Your task to perform on an android device: What's the weather going to be tomorrow? Image 0: 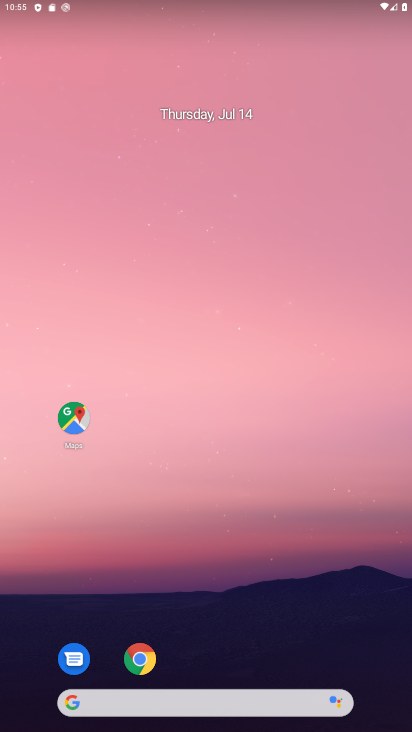
Step 0: click (140, 664)
Your task to perform on an android device: What's the weather going to be tomorrow? Image 1: 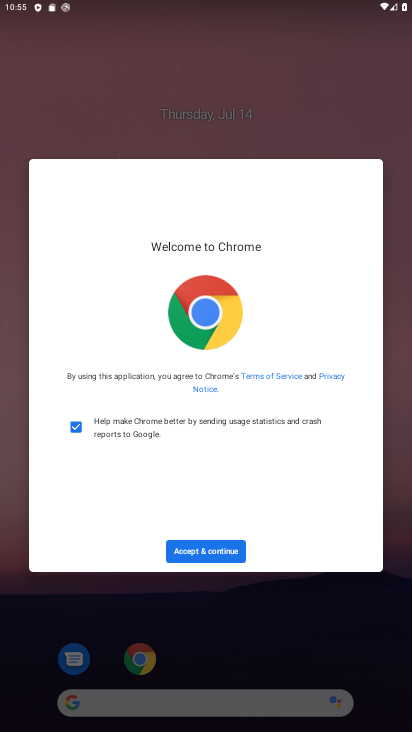
Step 1: click (218, 548)
Your task to perform on an android device: What's the weather going to be tomorrow? Image 2: 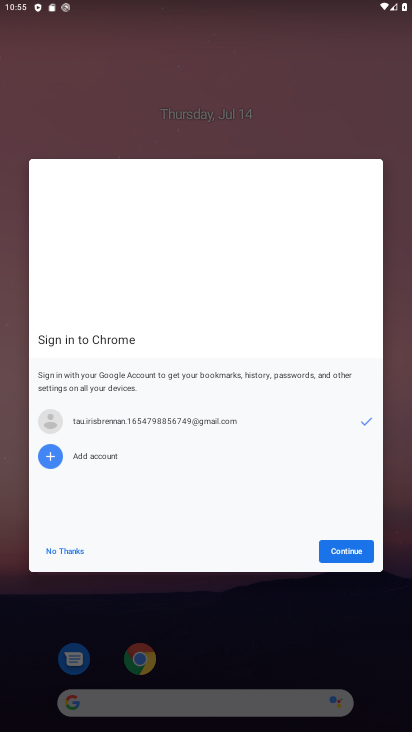
Step 2: click (345, 549)
Your task to perform on an android device: What's the weather going to be tomorrow? Image 3: 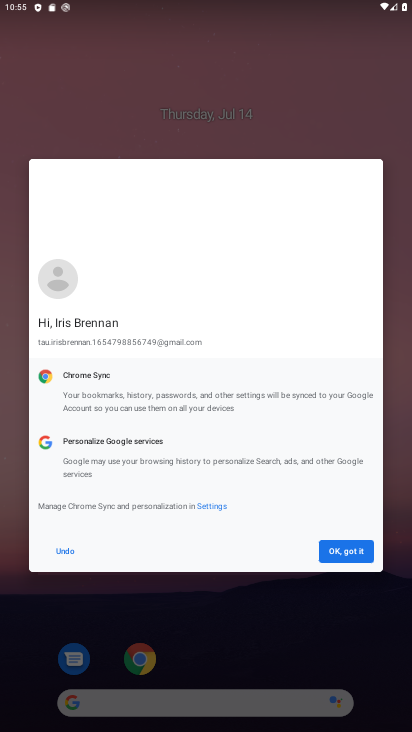
Step 3: click (344, 549)
Your task to perform on an android device: What's the weather going to be tomorrow? Image 4: 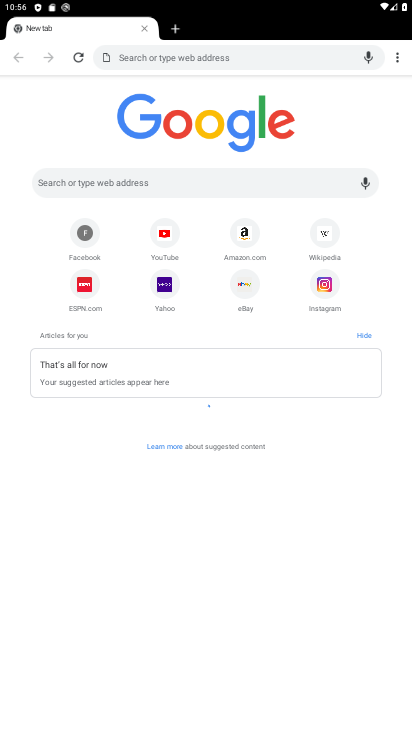
Step 4: click (176, 188)
Your task to perform on an android device: What's the weather going to be tomorrow? Image 5: 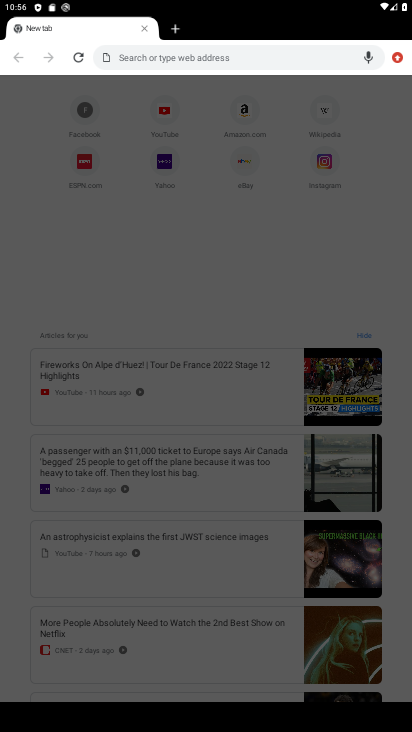
Step 5: type "What's the weather going to be tomorrow?"
Your task to perform on an android device: What's the weather going to be tomorrow? Image 6: 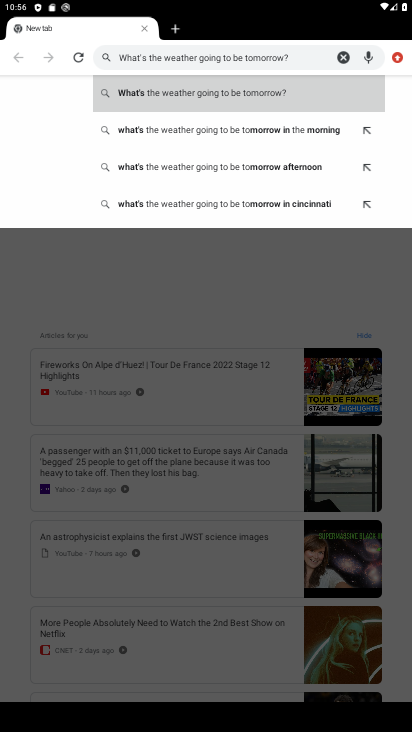
Step 6: click (285, 98)
Your task to perform on an android device: What's the weather going to be tomorrow? Image 7: 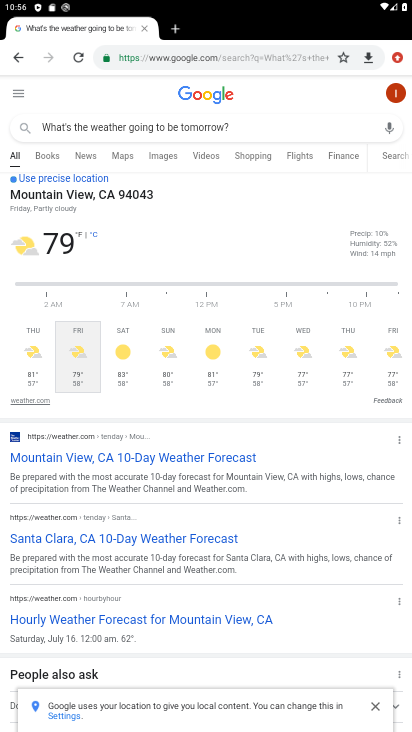
Step 7: task complete